Your task to perform on an android device: View the shopping cart on bestbuy. Add "razer nari" to the cart on bestbuy, then select checkout. Image 0: 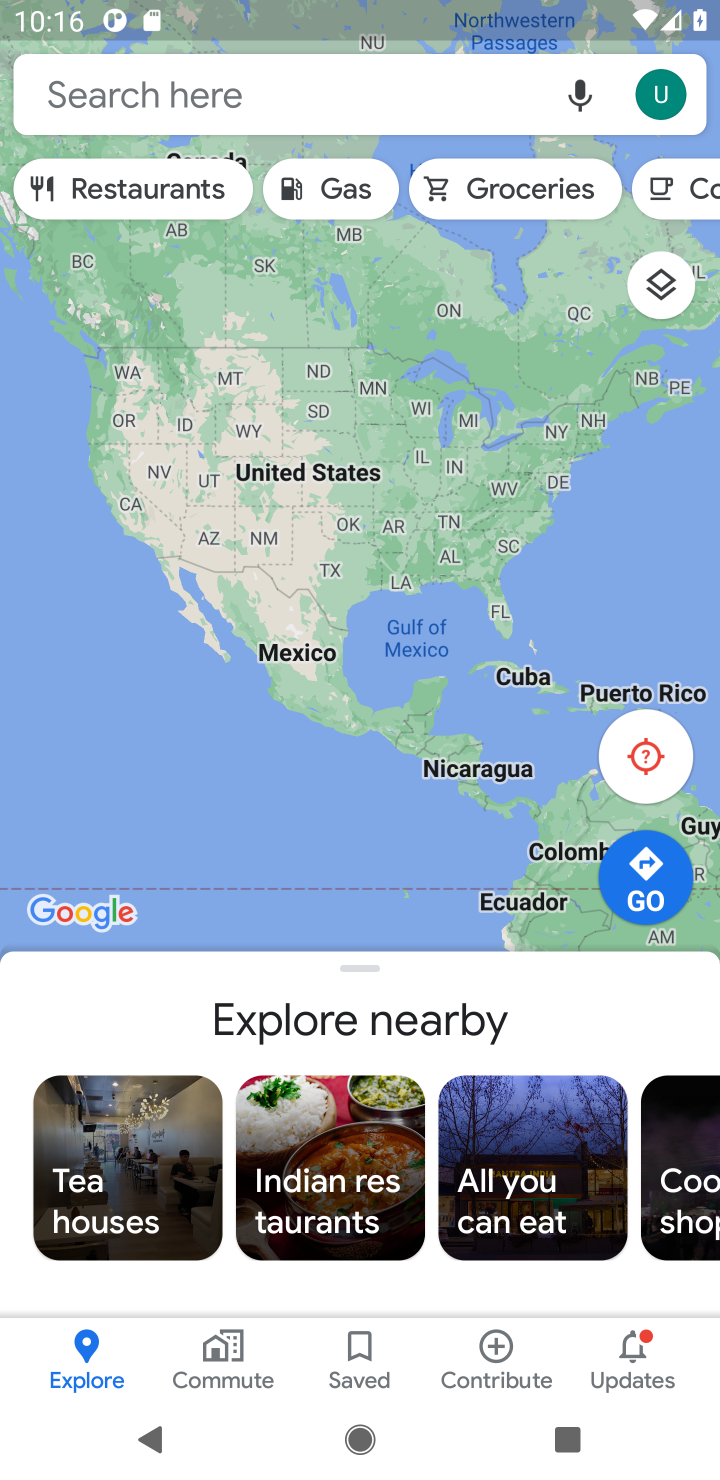
Step 0: task complete